Your task to perform on an android device: turn on improve location accuracy Image 0: 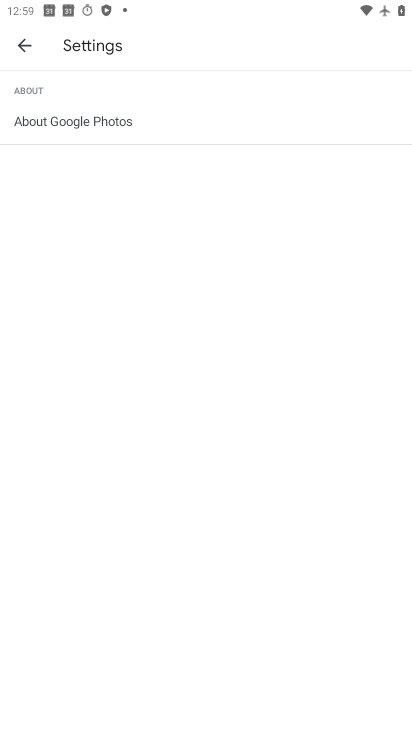
Step 0: press home button
Your task to perform on an android device: turn on improve location accuracy Image 1: 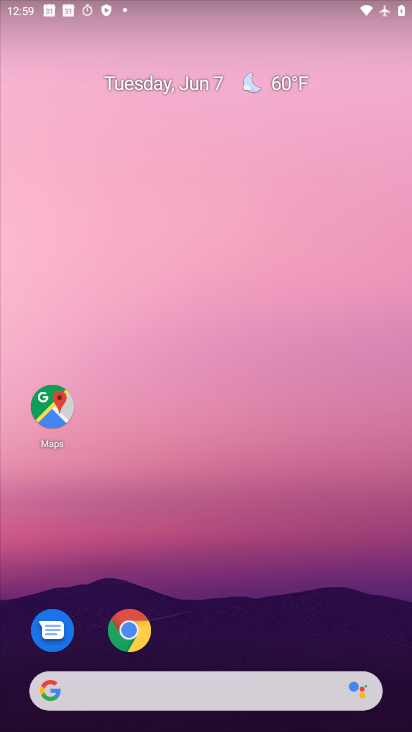
Step 1: drag from (390, 623) to (300, 50)
Your task to perform on an android device: turn on improve location accuracy Image 2: 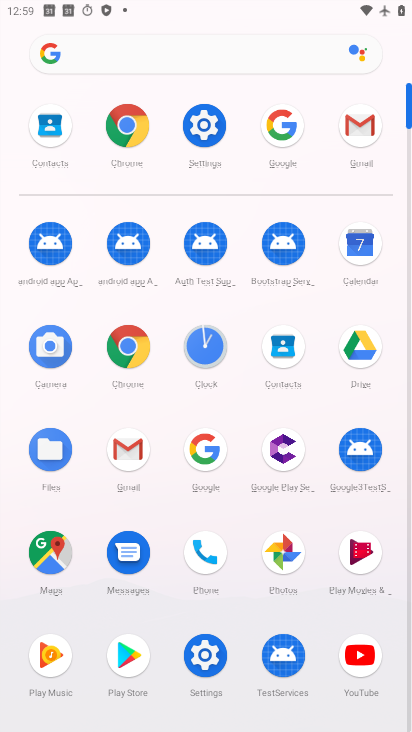
Step 2: click (196, 136)
Your task to perform on an android device: turn on improve location accuracy Image 3: 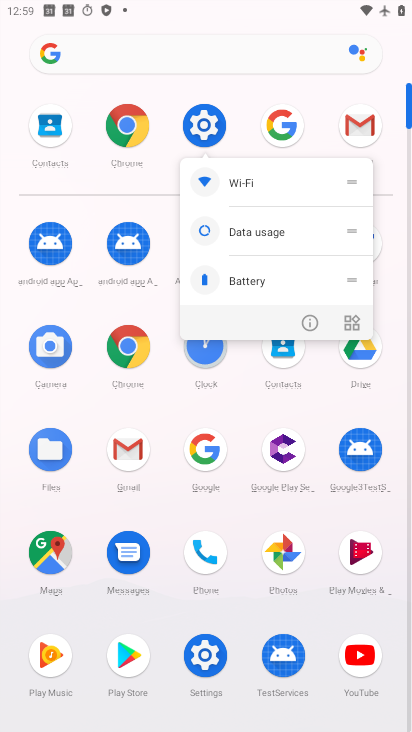
Step 3: click (196, 136)
Your task to perform on an android device: turn on improve location accuracy Image 4: 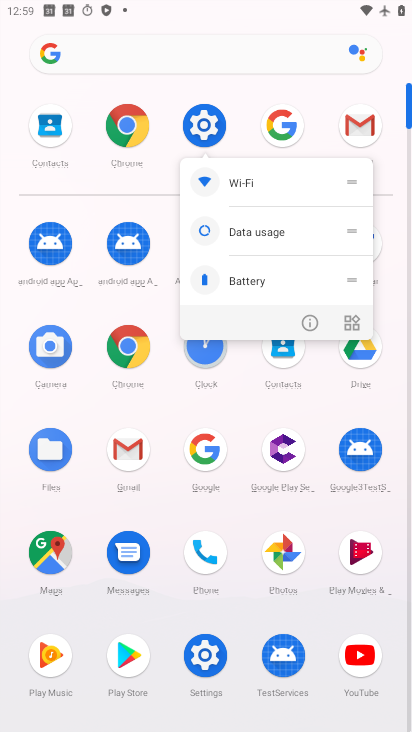
Step 4: click (196, 136)
Your task to perform on an android device: turn on improve location accuracy Image 5: 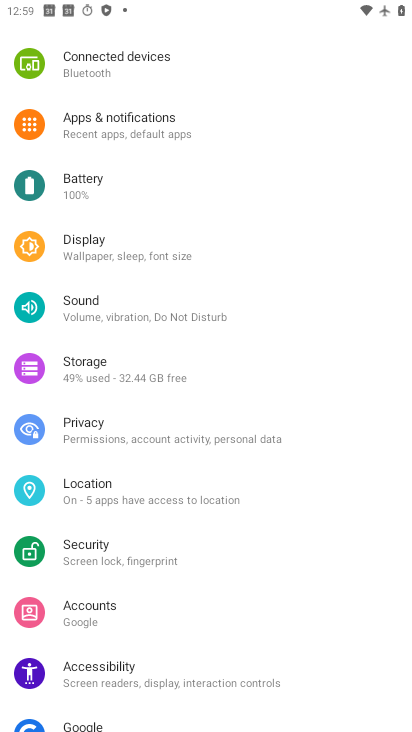
Step 5: click (131, 508)
Your task to perform on an android device: turn on improve location accuracy Image 6: 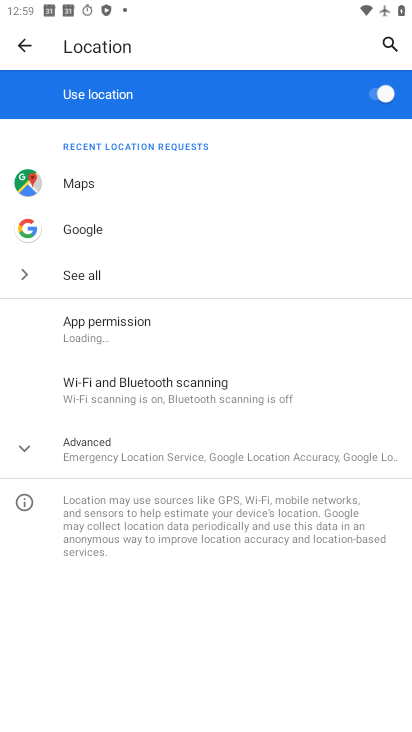
Step 6: click (167, 451)
Your task to perform on an android device: turn on improve location accuracy Image 7: 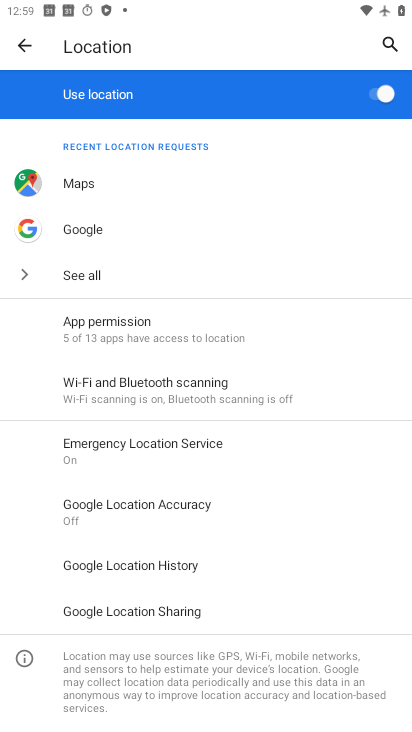
Step 7: click (151, 501)
Your task to perform on an android device: turn on improve location accuracy Image 8: 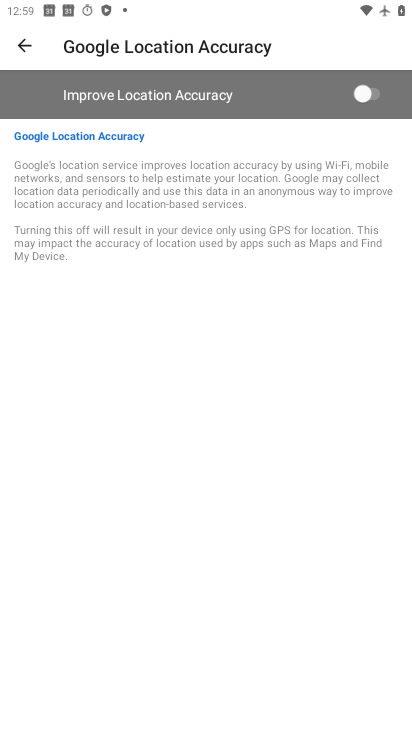
Step 8: click (363, 80)
Your task to perform on an android device: turn on improve location accuracy Image 9: 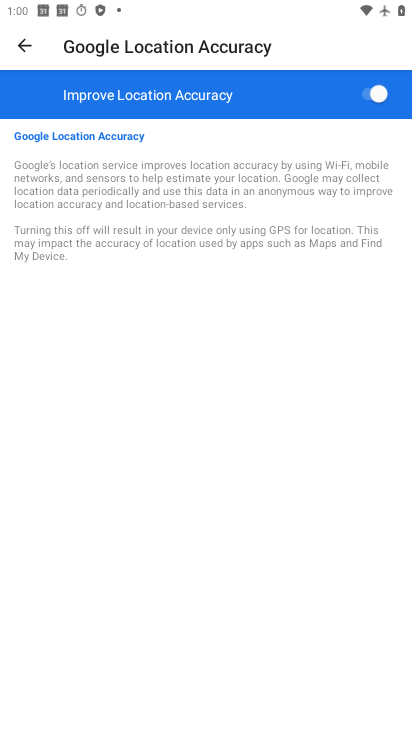
Step 9: task complete